Your task to perform on an android device: open wifi settings Image 0: 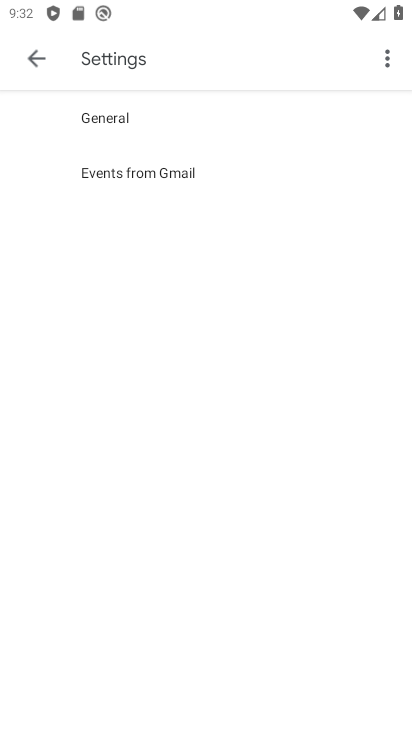
Step 0: drag from (257, 603) to (257, 460)
Your task to perform on an android device: open wifi settings Image 1: 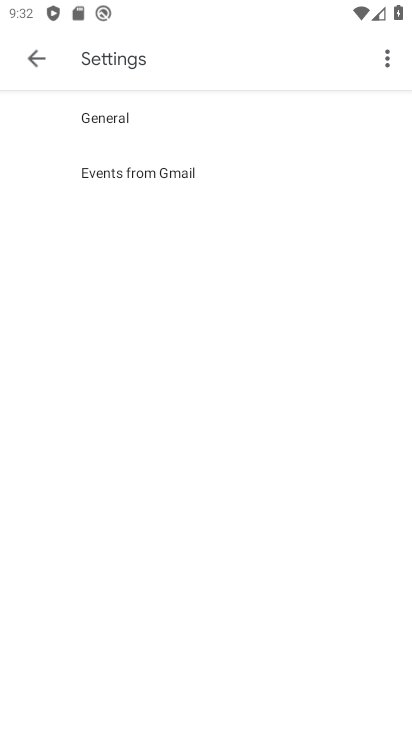
Step 1: press home button
Your task to perform on an android device: open wifi settings Image 2: 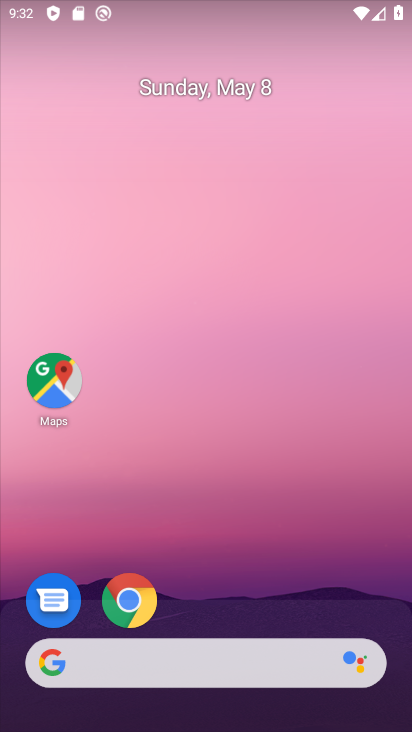
Step 2: drag from (321, 580) to (351, 158)
Your task to perform on an android device: open wifi settings Image 3: 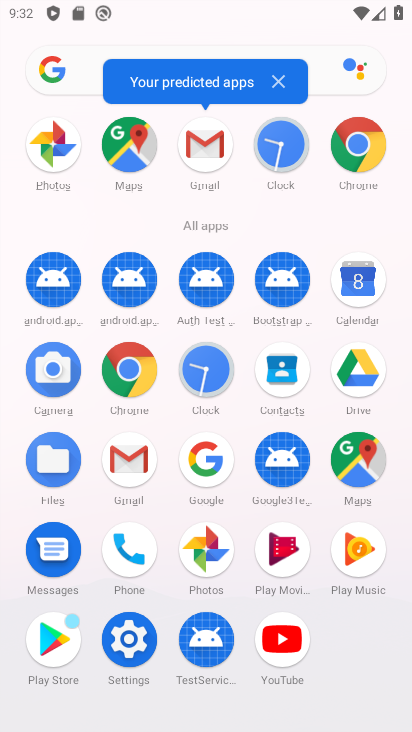
Step 3: click (148, 652)
Your task to perform on an android device: open wifi settings Image 4: 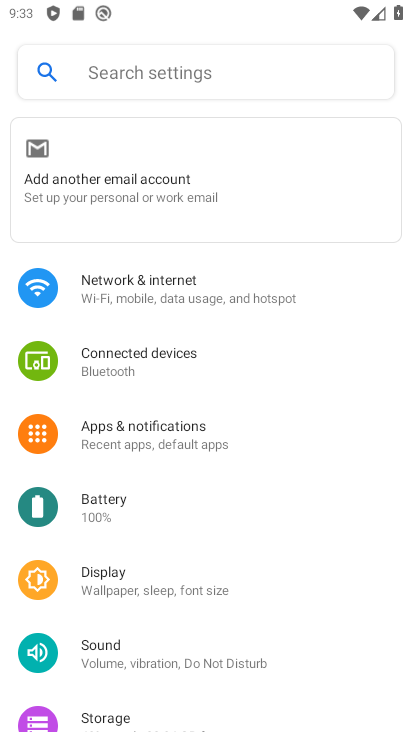
Step 4: click (161, 313)
Your task to perform on an android device: open wifi settings Image 5: 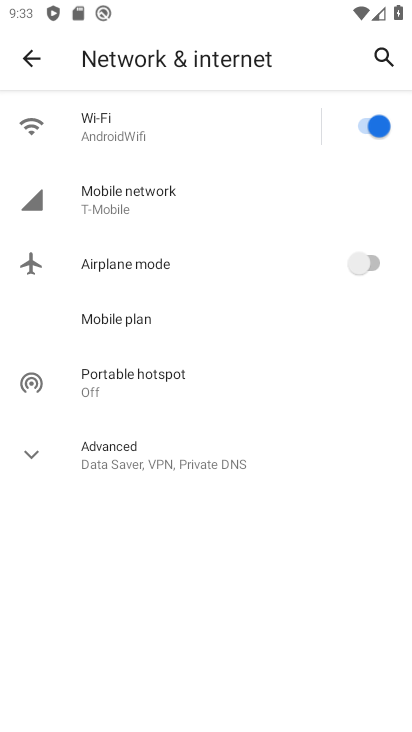
Step 5: click (147, 124)
Your task to perform on an android device: open wifi settings Image 6: 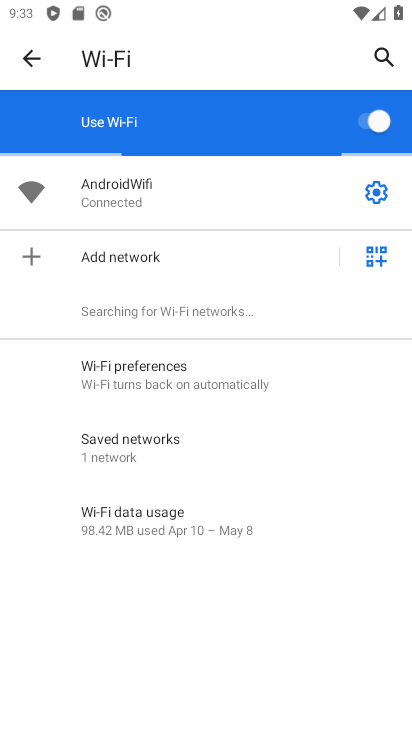
Step 6: task complete